Your task to perform on an android device: delete location history Image 0: 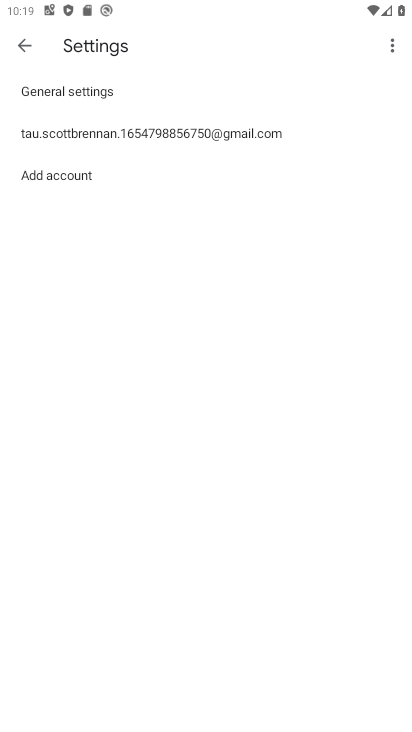
Step 0: press home button
Your task to perform on an android device: delete location history Image 1: 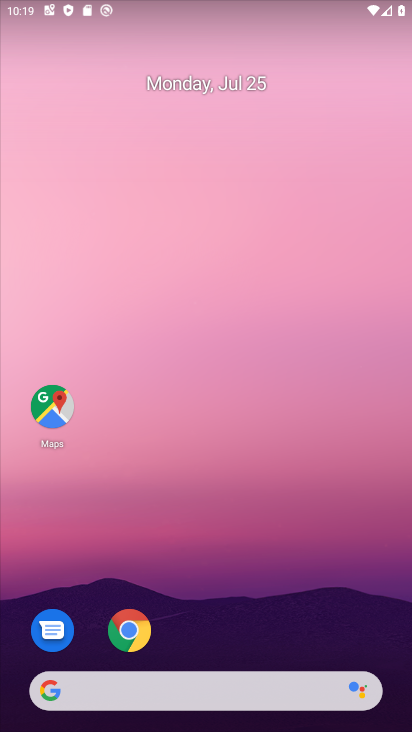
Step 1: drag from (372, 613) to (373, 125)
Your task to perform on an android device: delete location history Image 2: 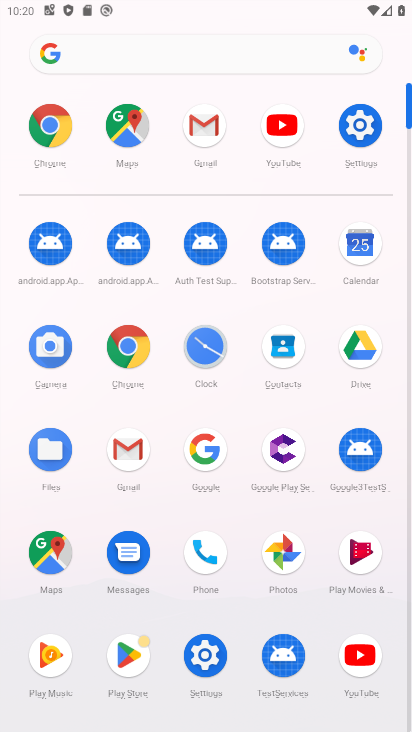
Step 2: click (52, 548)
Your task to perform on an android device: delete location history Image 3: 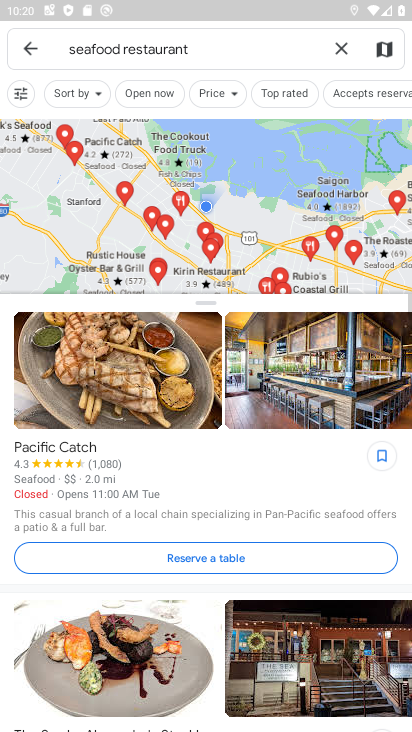
Step 3: press back button
Your task to perform on an android device: delete location history Image 4: 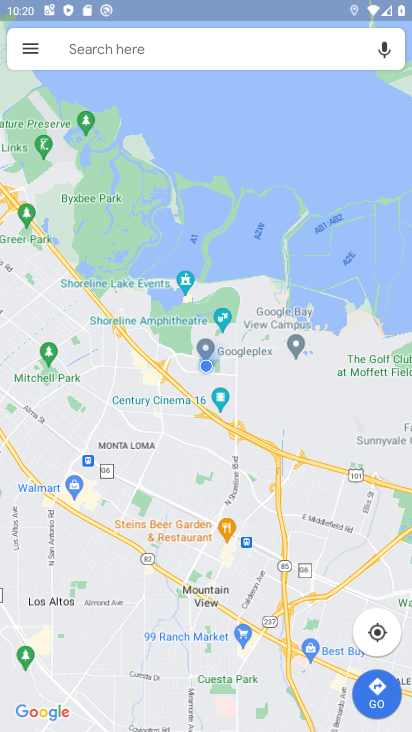
Step 4: click (29, 48)
Your task to perform on an android device: delete location history Image 5: 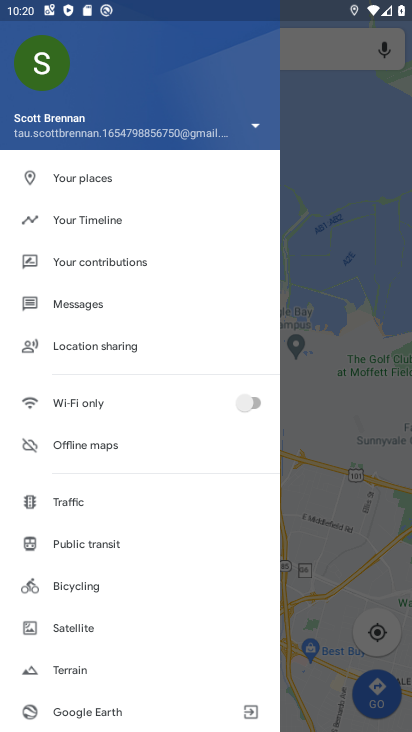
Step 5: click (104, 215)
Your task to perform on an android device: delete location history Image 6: 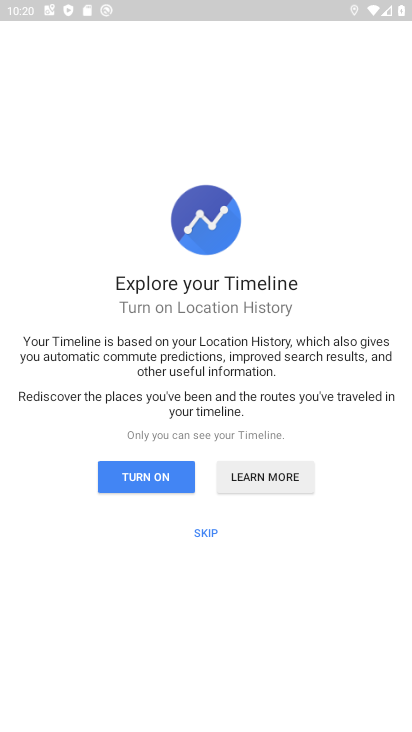
Step 6: click (206, 531)
Your task to perform on an android device: delete location history Image 7: 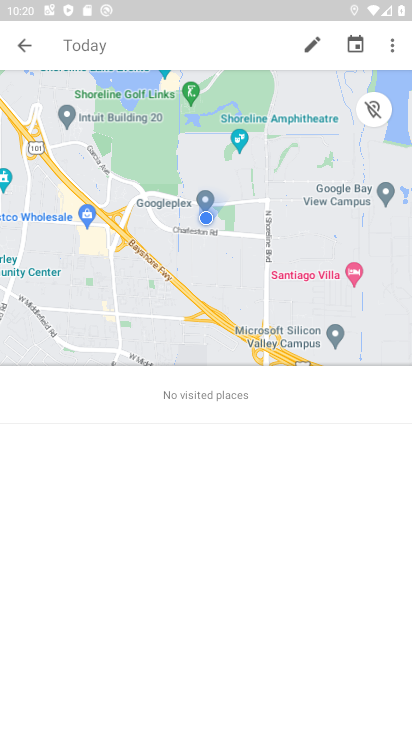
Step 7: click (387, 44)
Your task to perform on an android device: delete location history Image 8: 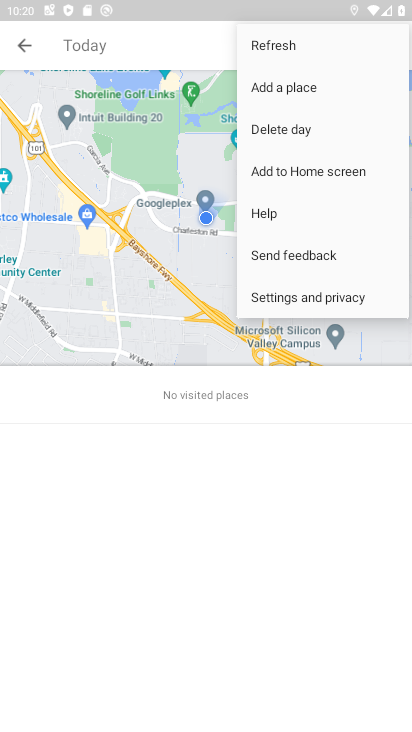
Step 8: click (330, 293)
Your task to perform on an android device: delete location history Image 9: 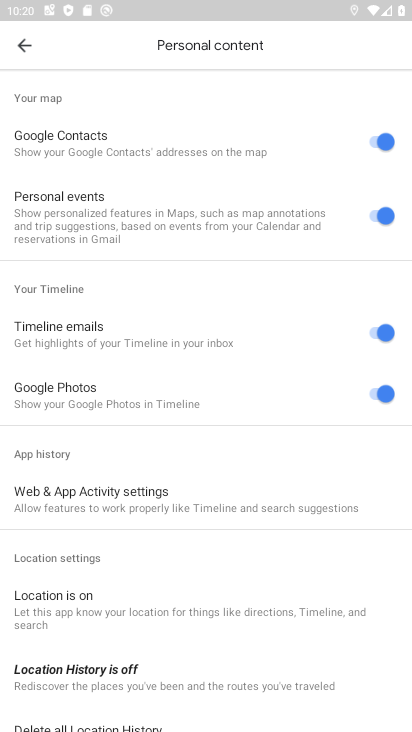
Step 9: drag from (309, 429) to (318, 359)
Your task to perform on an android device: delete location history Image 10: 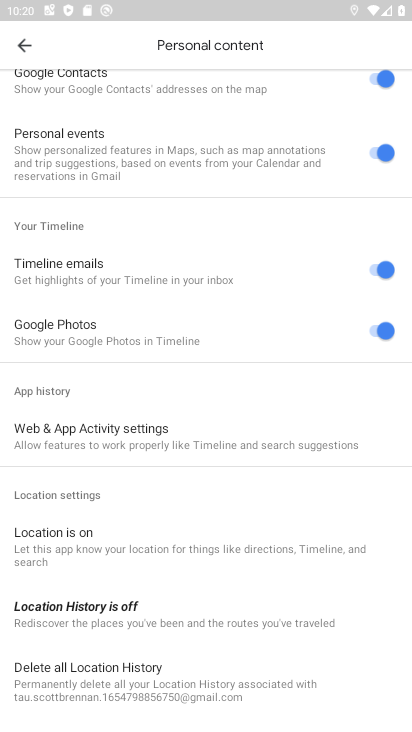
Step 10: drag from (315, 496) to (322, 388)
Your task to perform on an android device: delete location history Image 11: 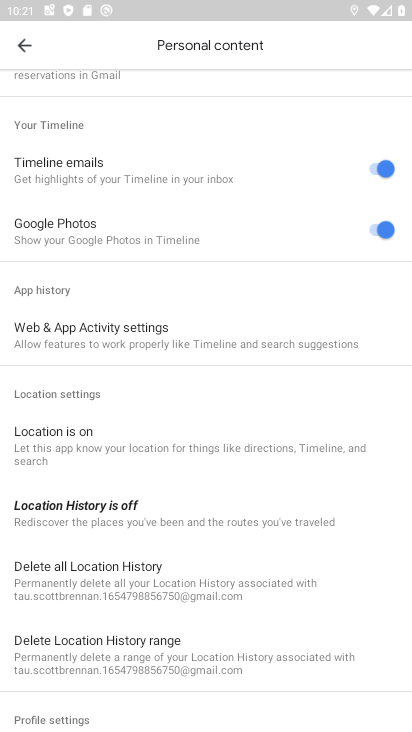
Step 11: drag from (310, 555) to (308, 438)
Your task to perform on an android device: delete location history Image 12: 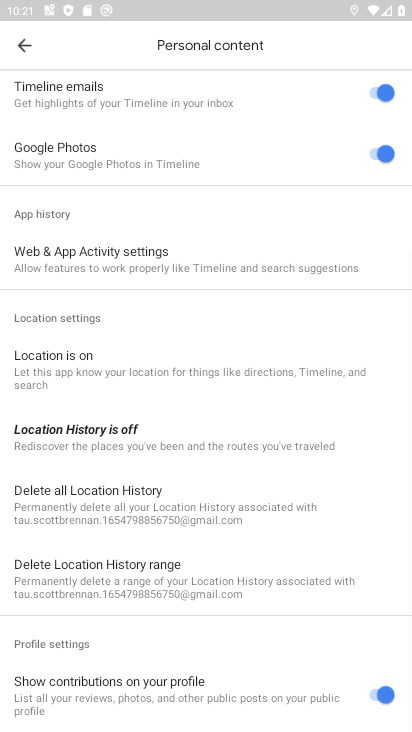
Step 12: click (279, 493)
Your task to perform on an android device: delete location history Image 13: 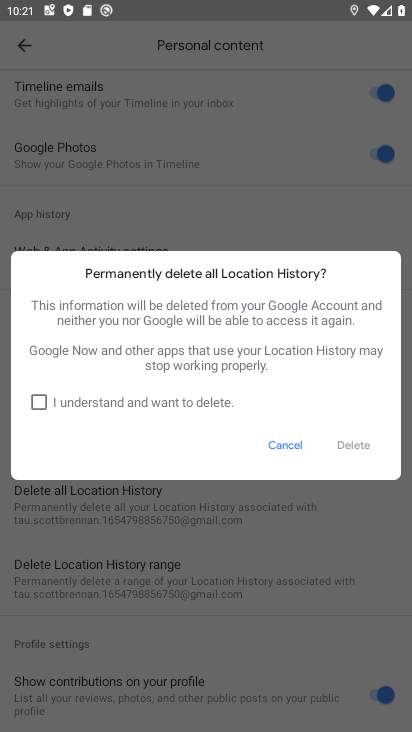
Step 13: click (58, 401)
Your task to perform on an android device: delete location history Image 14: 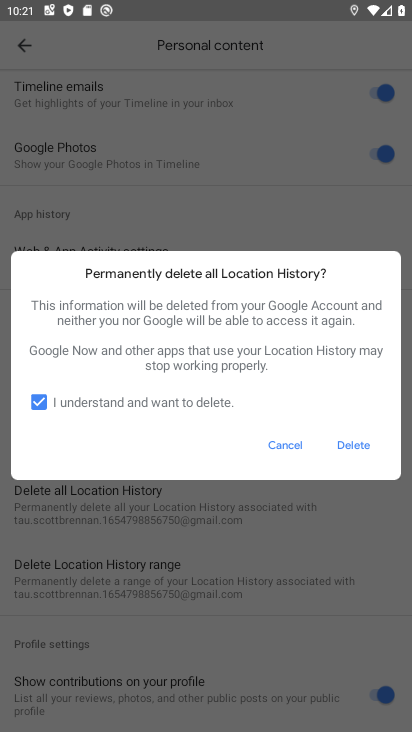
Step 14: click (357, 439)
Your task to perform on an android device: delete location history Image 15: 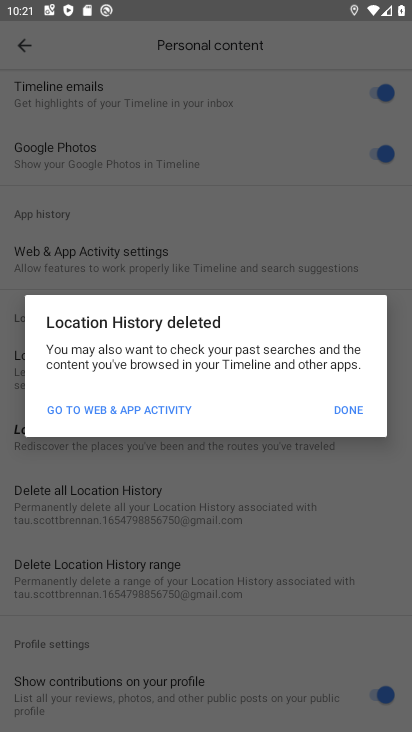
Step 15: click (343, 407)
Your task to perform on an android device: delete location history Image 16: 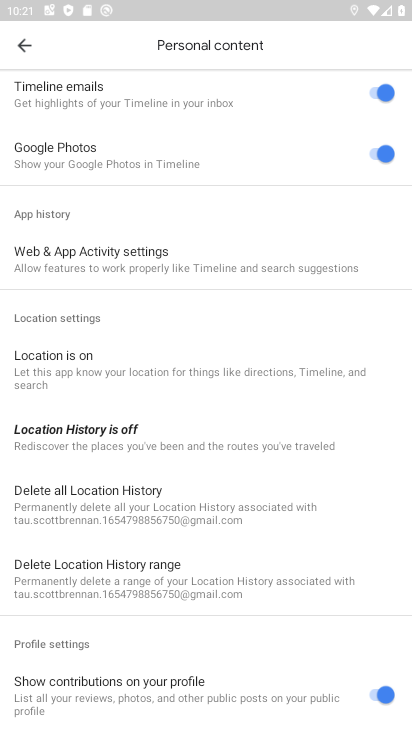
Step 16: task complete